Your task to perform on an android device: change the clock display to digital Image 0: 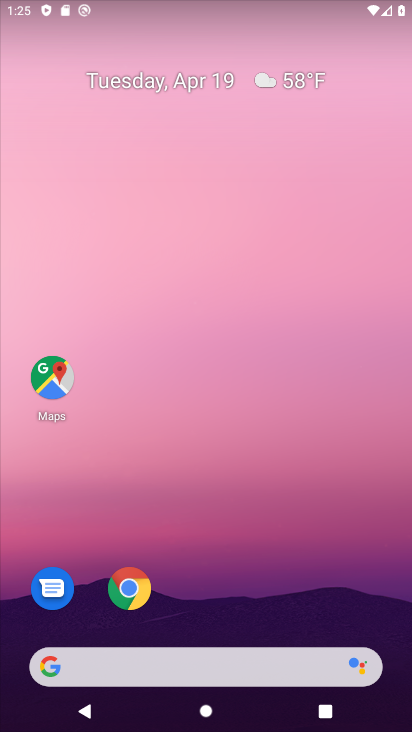
Step 0: drag from (308, 520) to (293, 53)
Your task to perform on an android device: change the clock display to digital Image 1: 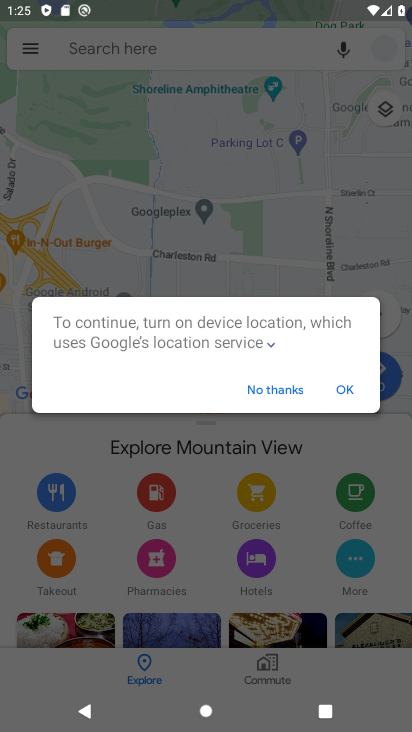
Step 1: press home button
Your task to perform on an android device: change the clock display to digital Image 2: 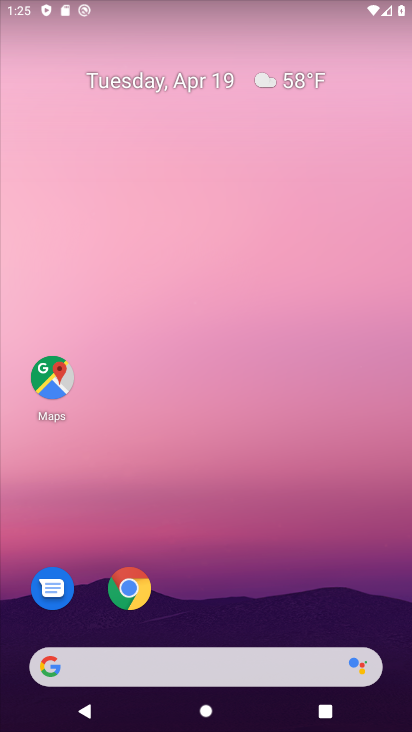
Step 2: drag from (288, 570) to (357, 61)
Your task to perform on an android device: change the clock display to digital Image 3: 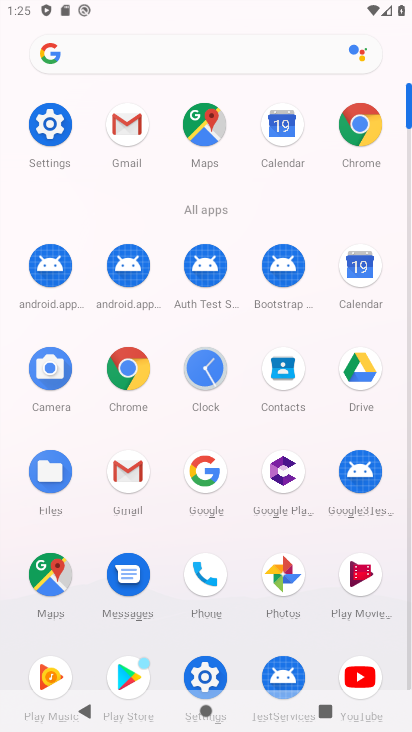
Step 3: click (207, 360)
Your task to perform on an android device: change the clock display to digital Image 4: 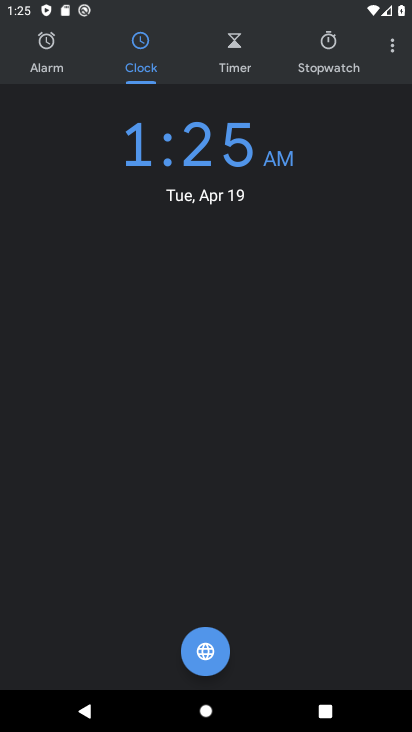
Step 4: task complete